Your task to perform on an android device: check android version Image 0: 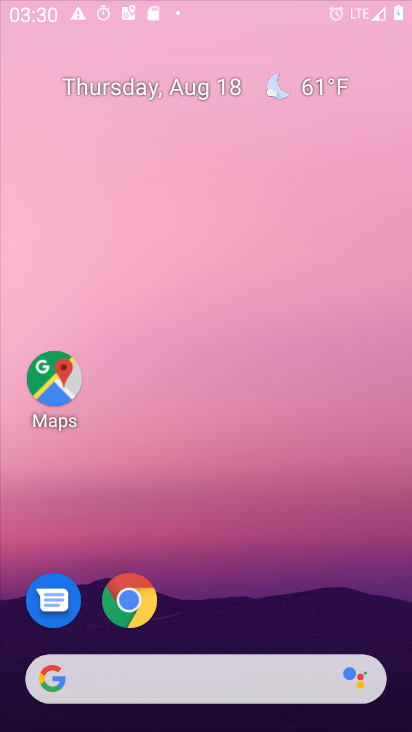
Step 0: press home button
Your task to perform on an android device: check android version Image 1: 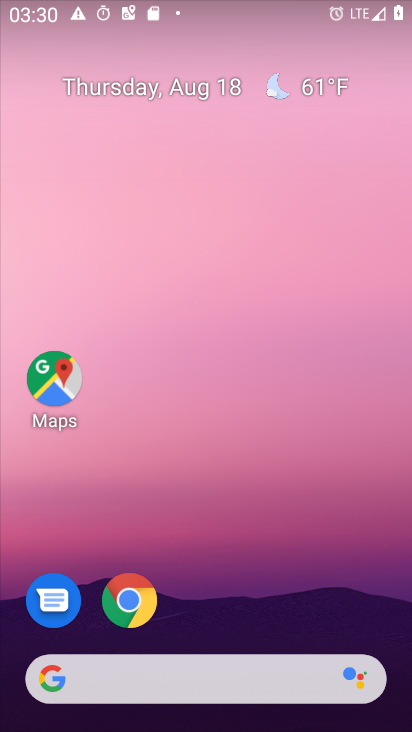
Step 1: drag from (258, 625) to (319, 23)
Your task to perform on an android device: check android version Image 2: 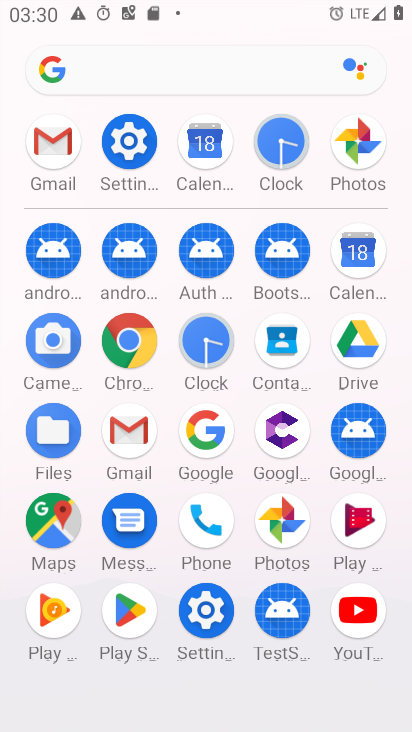
Step 2: click (126, 150)
Your task to perform on an android device: check android version Image 3: 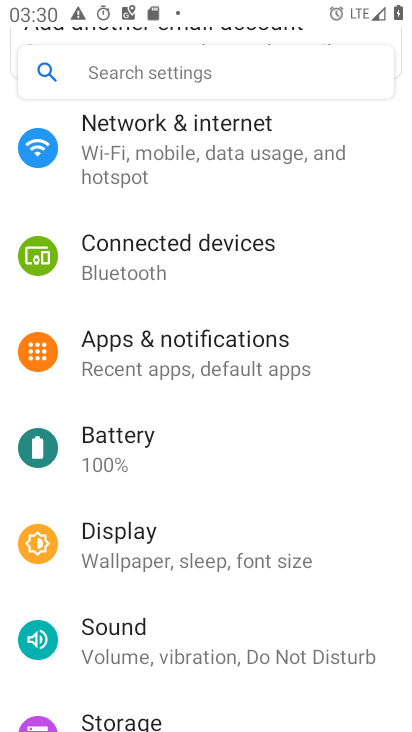
Step 3: drag from (249, 682) to (389, 4)
Your task to perform on an android device: check android version Image 4: 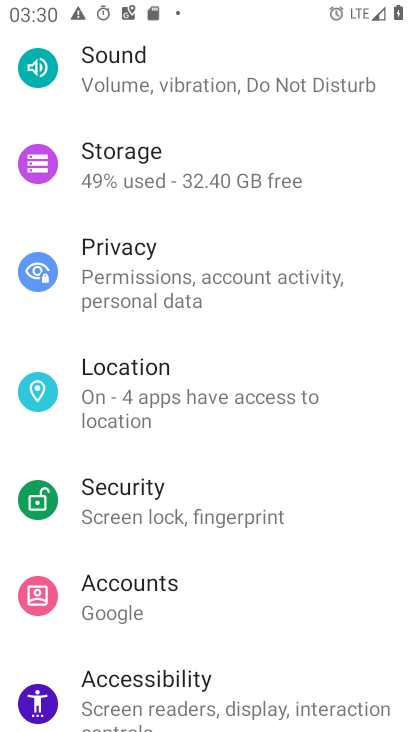
Step 4: drag from (275, 619) to (330, 2)
Your task to perform on an android device: check android version Image 5: 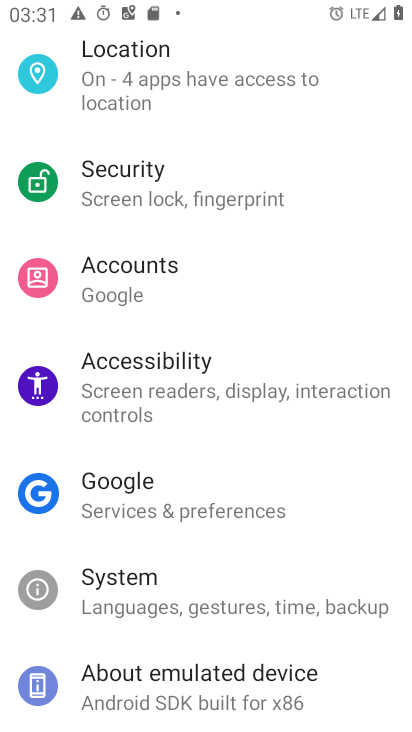
Step 5: click (154, 694)
Your task to perform on an android device: check android version Image 6: 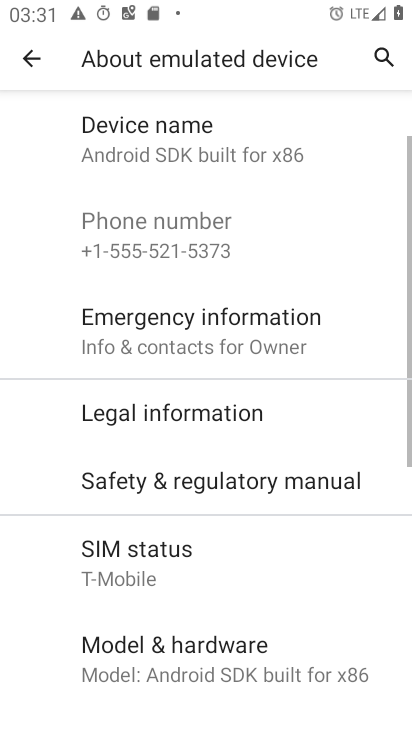
Step 6: task complete